Your task to perform on an android device: check android version Image 0: 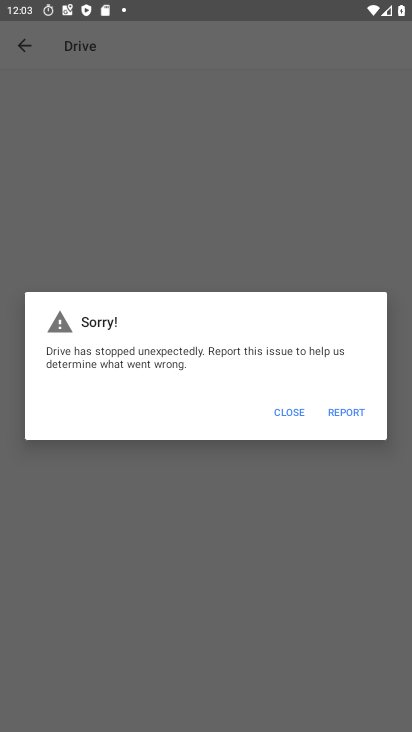
Step 0: press home button
Your task to perform on an android device: check android version Image 1: 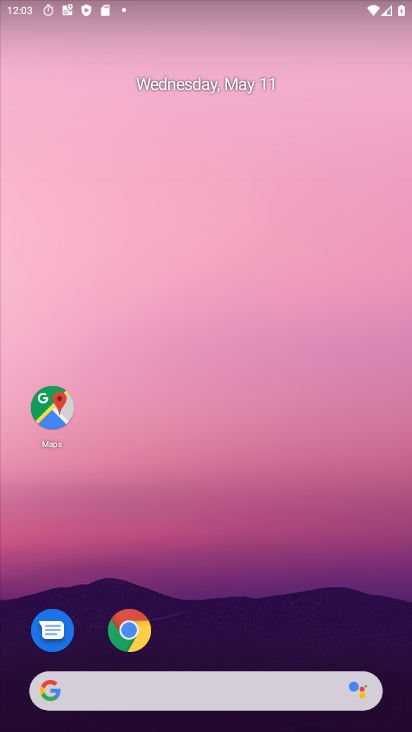
Step 1: drag from (290, 539) to (319, 59)
Your task to perform on an android device: check android version Image 2: 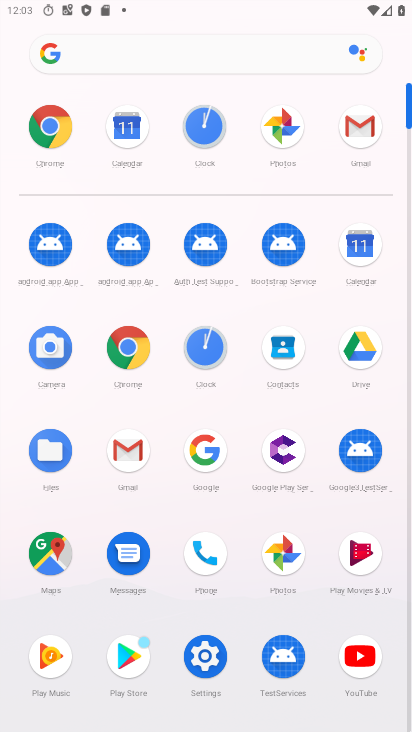
Step 2: click (184, 664)
Your task to perform on an android device: check android version Image 3: 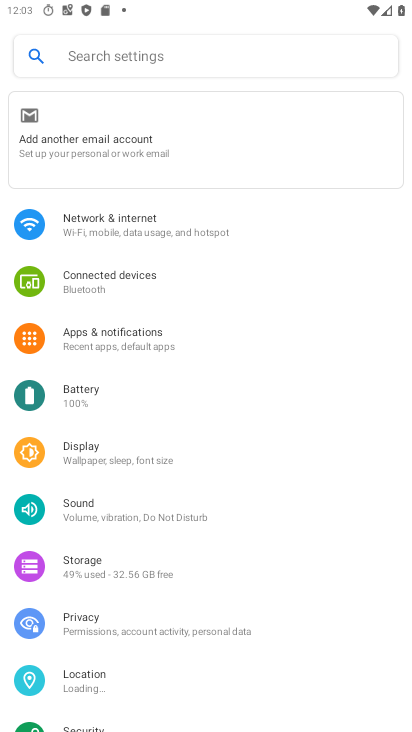
Step 3: drag from (200, 648) to (312, 159)
Your task to perform on an android device: check android version Image 4: 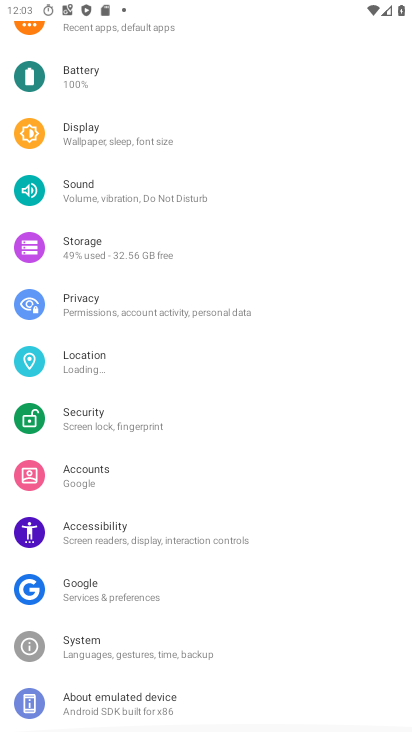
Step 4: drag from (148, 675) to (249, 318)
Your task to perform on an android device: check android version Image 5: 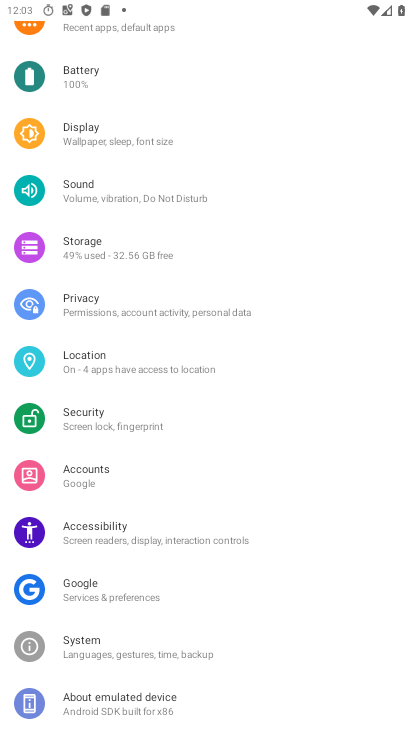
Step 5: click (126, 718)
Your task to perform on an android device: check android version Image 6: 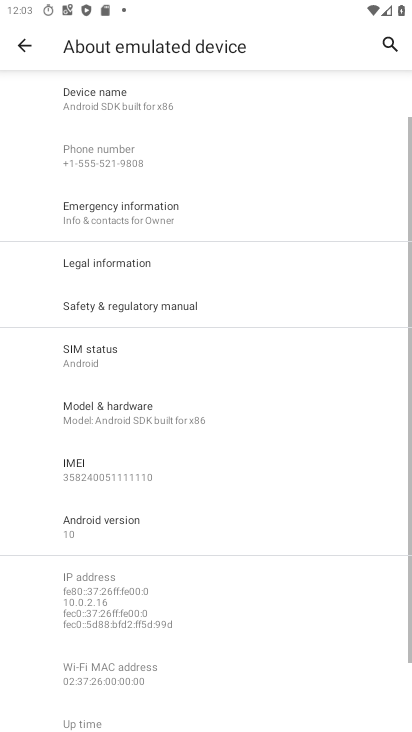
Step 6: drag from (242, 617) to (323, 118)
Your task to perform on an android device: check android version Image 7: 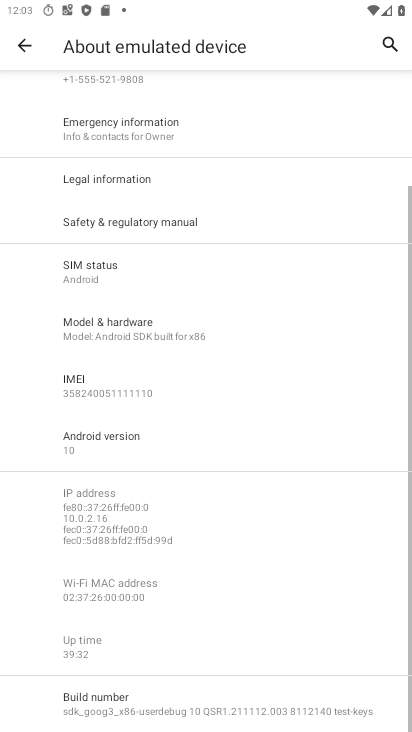
Step 7: drag from (213, 248) to (202, 662)
Your task to perform on an android device: check android version Image 8: 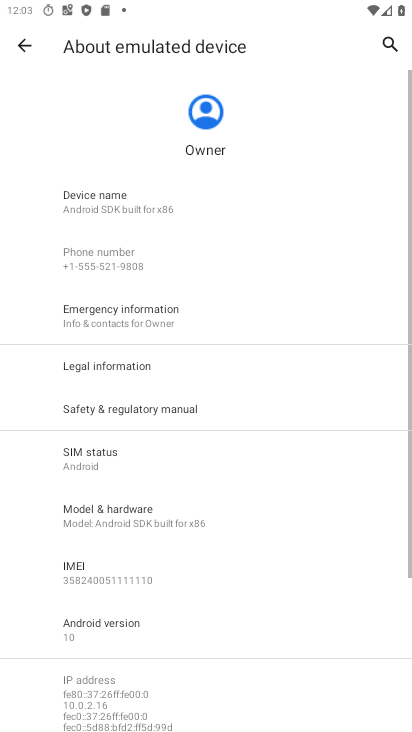
Step 8: drag from (250, 554) to (289, 233)
Your task to perform on an android device: check android version Image 9: 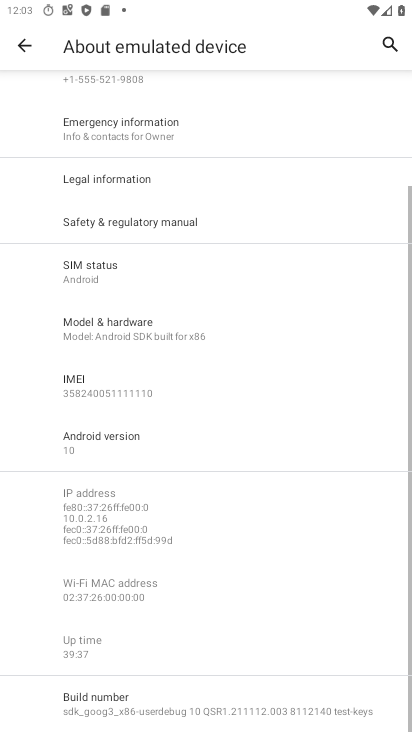
Step 9: click (120, 446)
Your task to perform on an android device: check android version Image 10: 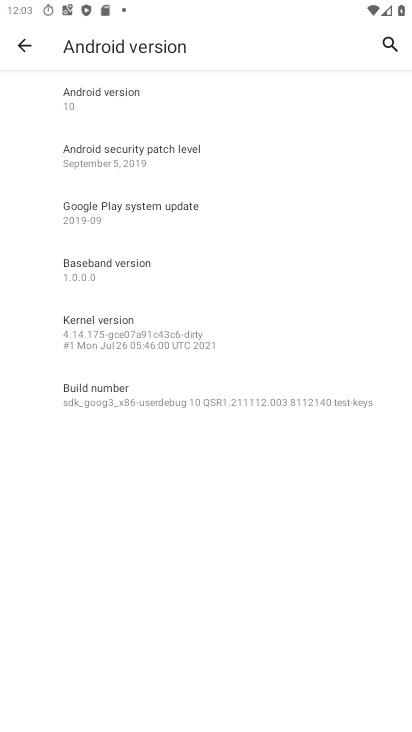
Step 10: task complete